Your task to perform on an android device: change notification settings in the gmail app Image 0: 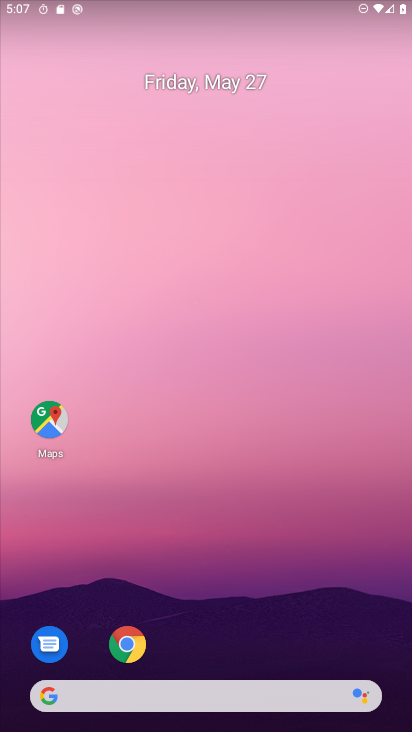
Step 0: drag from (225, 601) to (198, 183)
Your task to perform on an android device: change notification settings in the gmail app Image 1: 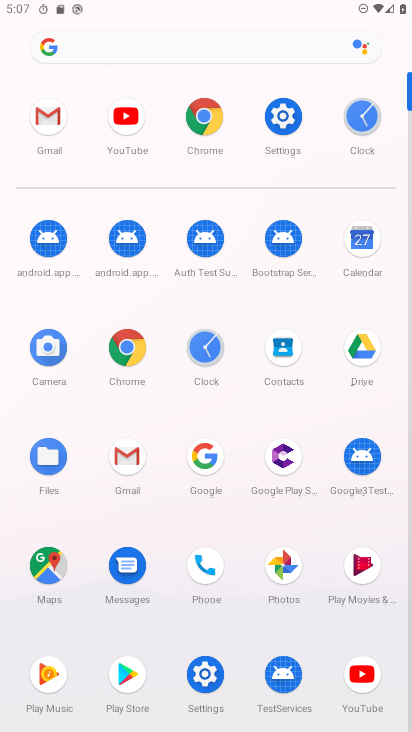
Step 1: click (288, 133)
Your task to perform on an android device: change notification settings in the gmail app Image 2: 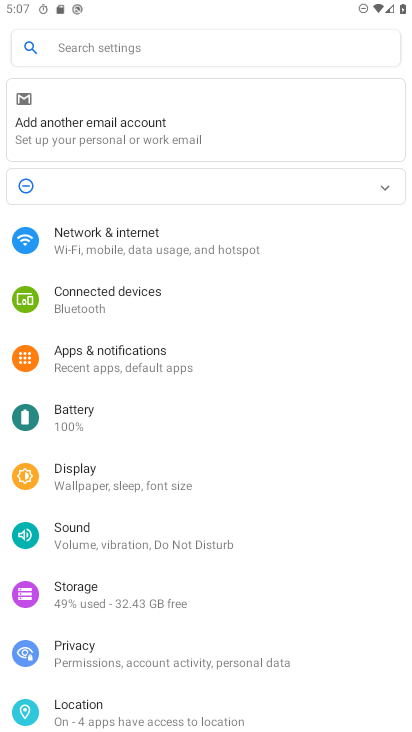
Step 2: click (112, 325)
Your task to perform on an android device: change notification settings in the gmail app Image 3: 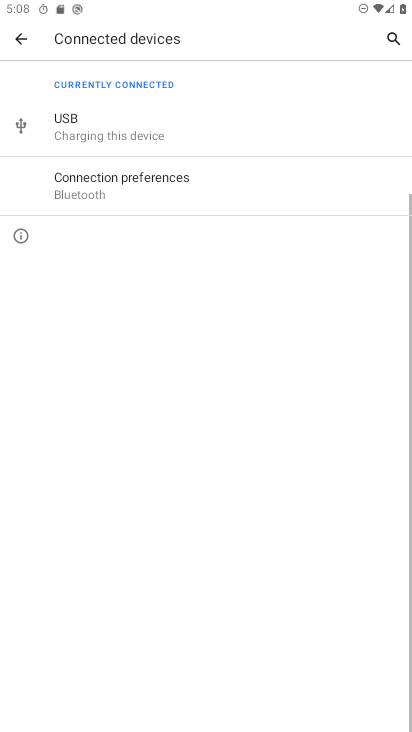
Step 3: click (104, 342)
Your task to perform on an android device: change notification settings in the gmail app Image 4: 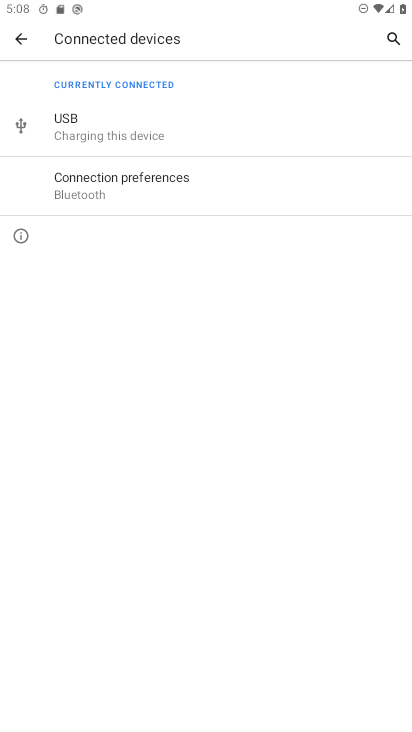
Step 4: click (14, 44)
Your task to perform on an android device: change notification settings in the gmail app Image 5: 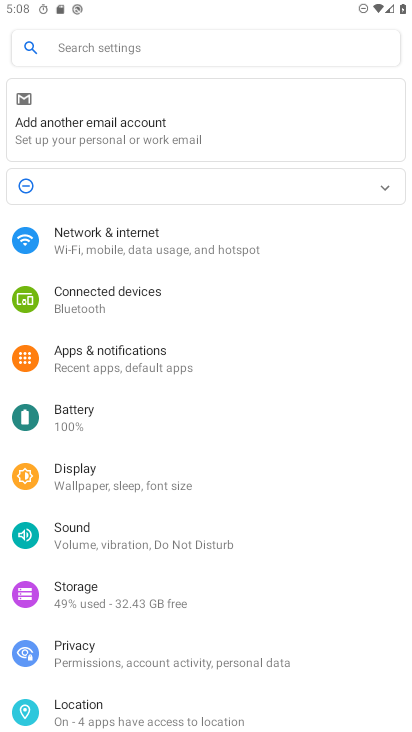
Step 5: click (104, 364)
Your task to perform on an android device: change notification settings in the gmail app Image 6: 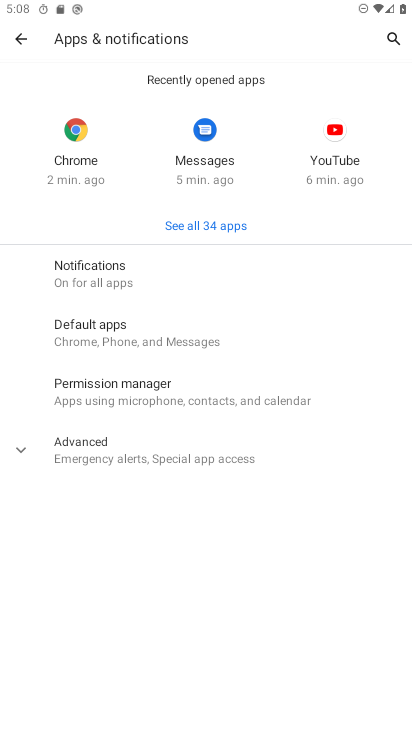
Step 6: click (215, 224)
Your task to perform on an android device: change notification settings in the gmail app Image 7: 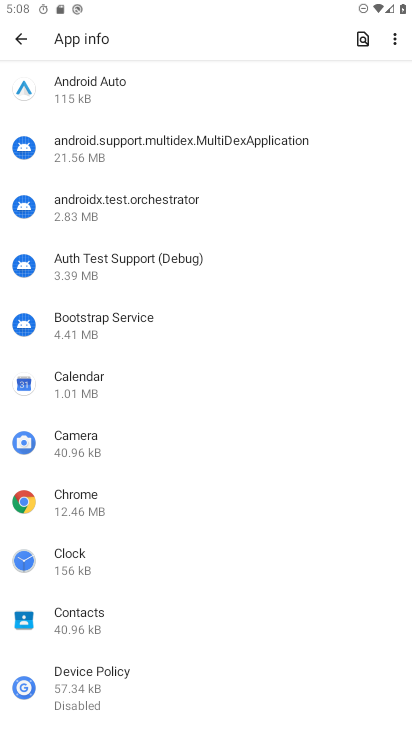
Step 7: drag from (138, 634) to (178, 157)
Your task to perform on an android device: change notification settings in the gmail app Image 8: 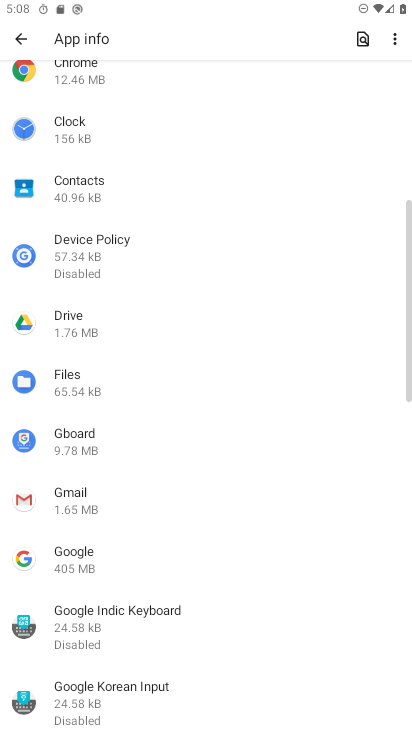
Step 8: click (119, 504)
Your task to perform on an android device: change notification settings in the gmail app Image 9: 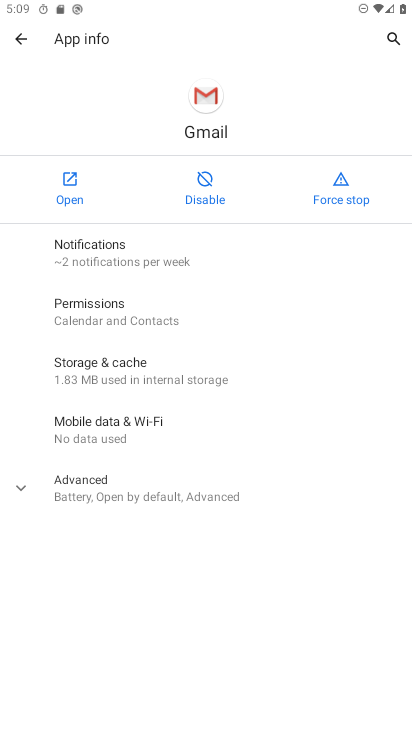
Step 9: click (115, 243)
Your task to perform on an android device: change notification settings in the gmail app Image 10: 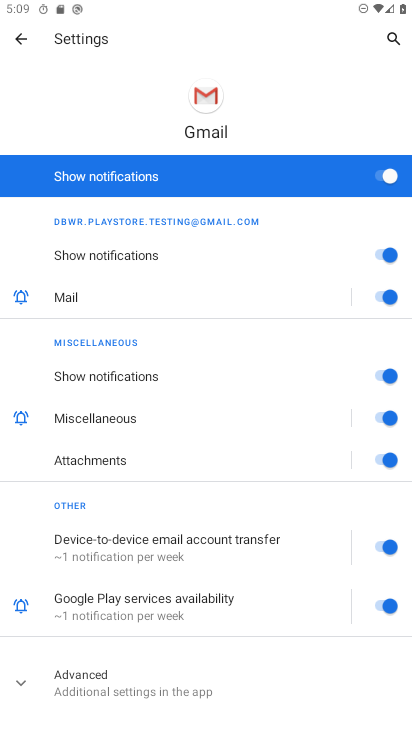
Step 10: click (115, 243)
Your task to perform on an android device: change notification settings in the gmail app Image 11: 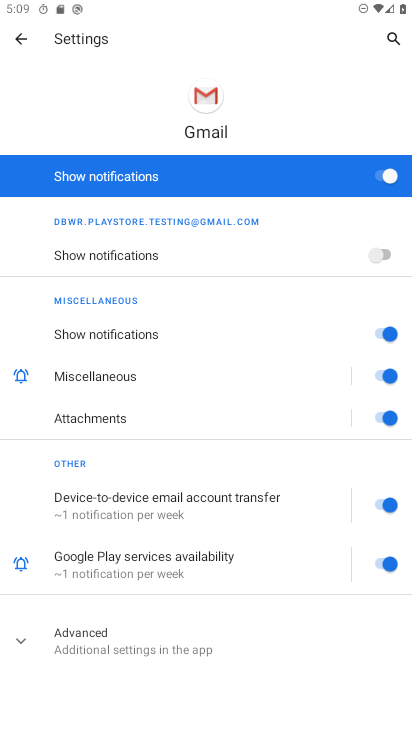
Step 11: click (393, 419)
Your task to perform on an android device: change notification settings in the gmail app Image 12: 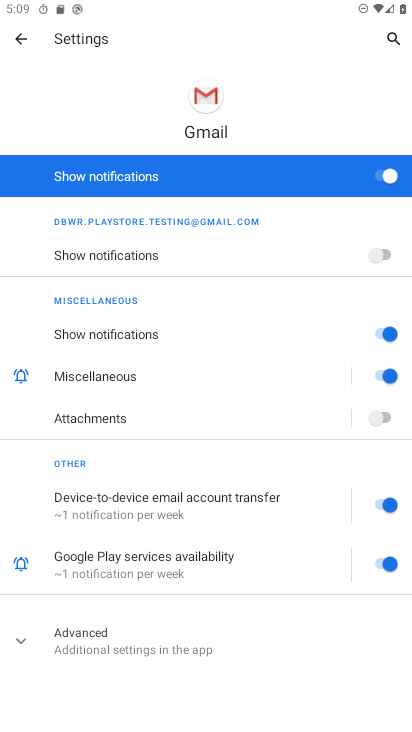
Step 12: click (386, 379)
Your task to perform on an android device: change notification settings in the gmail app Image 13: 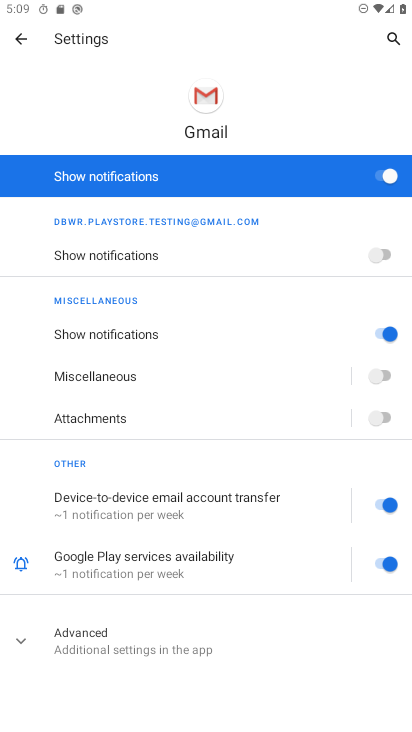
Step 13: click (388, 341)
Your task to perform on an android device: change notification settings in the gmail app Image 14: 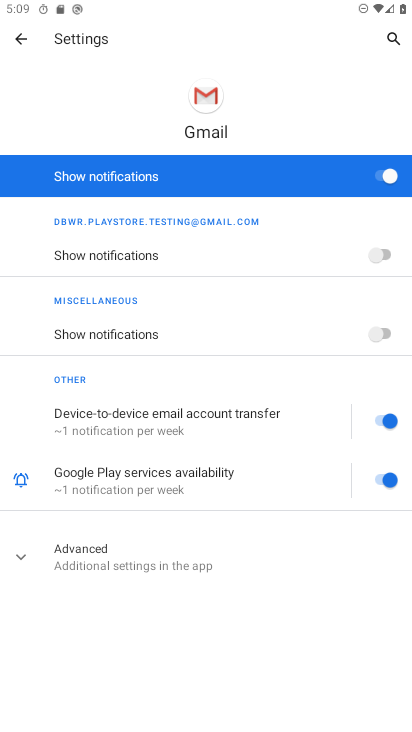
Step 14: task complete